Your task to perform on an android device: see sites visited before in the chrome app Image 0: 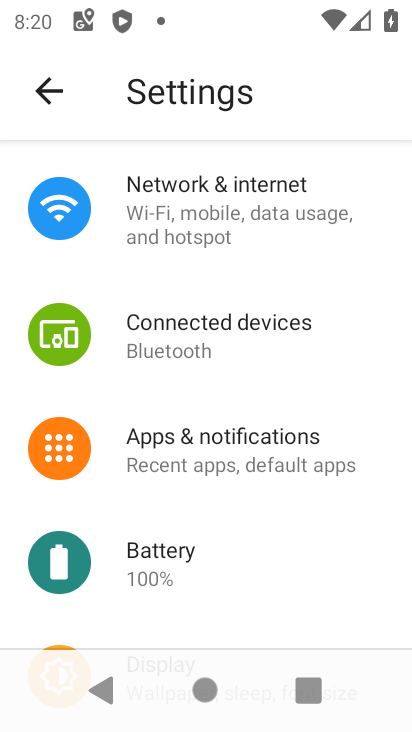
Step 0: press home button
Your task to perform on an android device: see sites visited before in the chrome app Image 1: 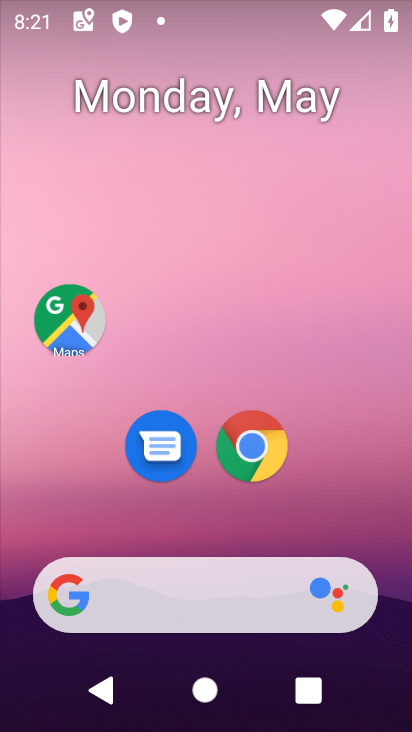
Step 1: click (260, 432)
Your task to perform on an android device: see sites visited before in the chrome app Image 2: 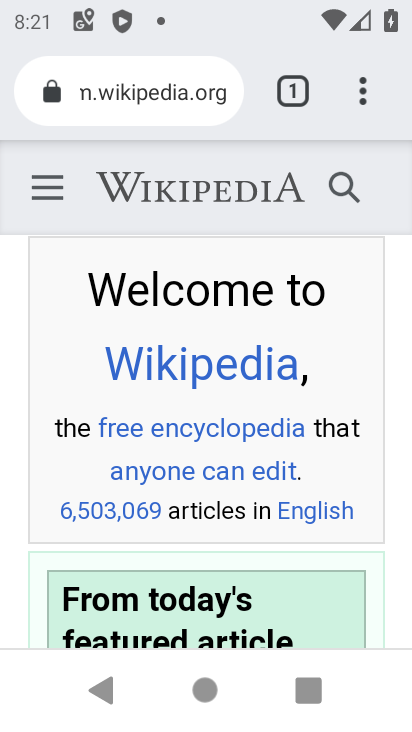
Step 2: click (352, 82)
Your task to perform on an android device: see sites visited before in the chrome app Image 3: 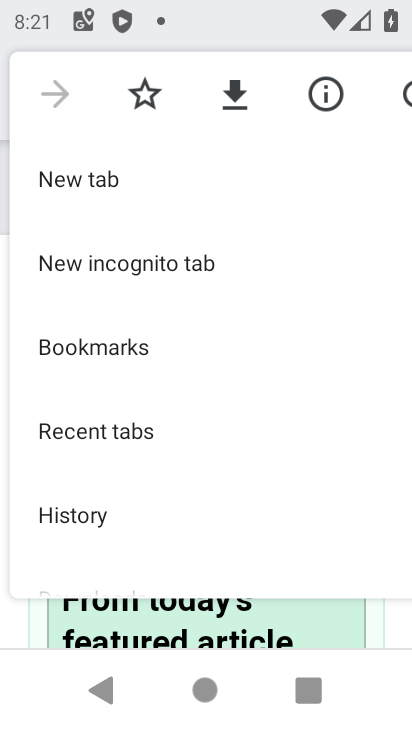
Step 3: drag from (237, 455) to (215, 255)
Your task to perform on an android device: see sites visited before in the chrome app Image 4: 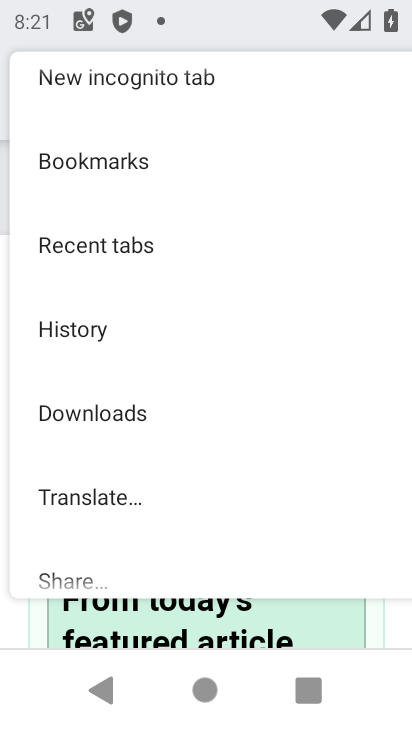
Step 4: drag from (337, 251) to (338, 562)
Your task to perform on an android device: see sites visited before in the chrome app Image 5: 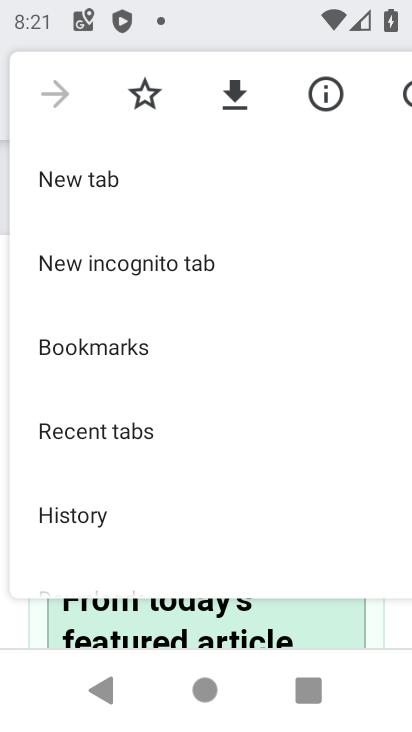
Step 5: click (63, 509)
Your task to perform on an android device: see sites visited before in the chrome app Image 6: 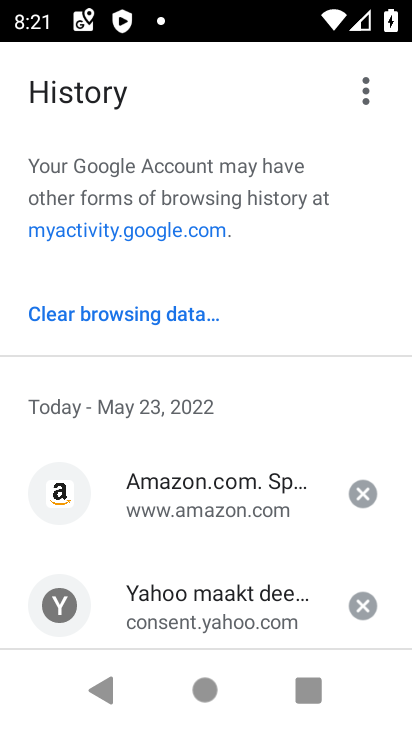
Step 6: task complete